Your task to perform on an android device: When is my next meeting? Image 0: 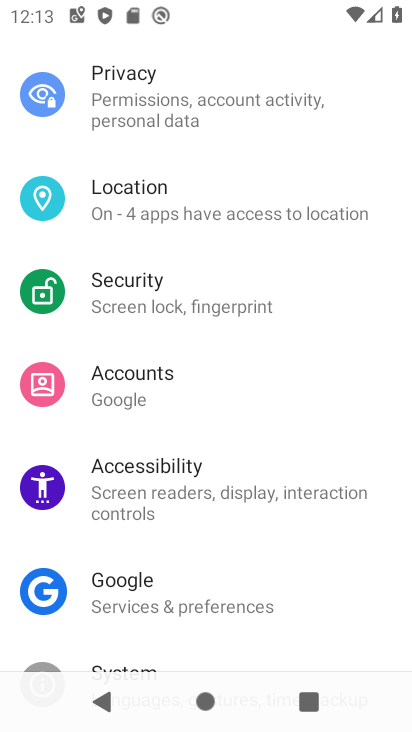
Step 0: press home button
Your task to perform on an android device: When is my next meeting? Image 1: 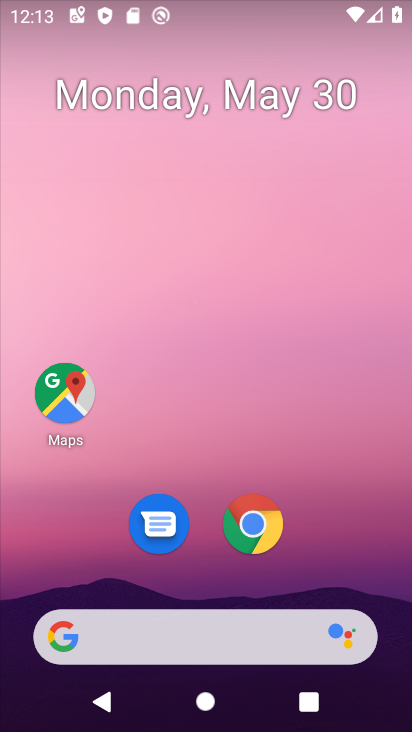
Step 1: drag from (226, 448) to (277, 6)
Your task to perform on an android device: When is my next meeting? Image 2: 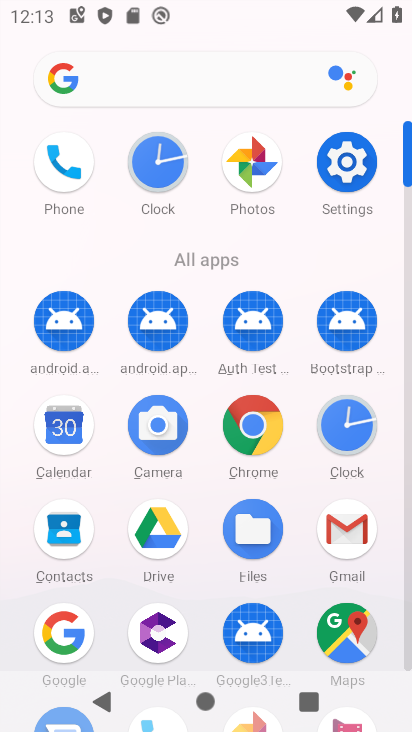
Step 2: click (66, 423)
Your task to perform on an android device: When is my next meeting? Image 3: 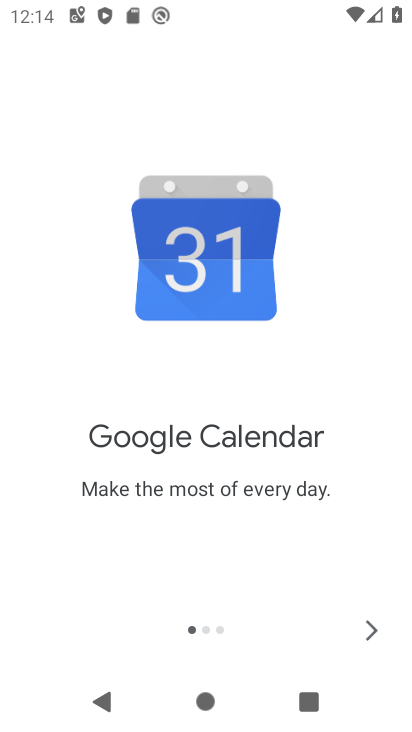
Step 3: click (367, 626)
Your task to perform on an android device: When is my next meeting? Image 4: 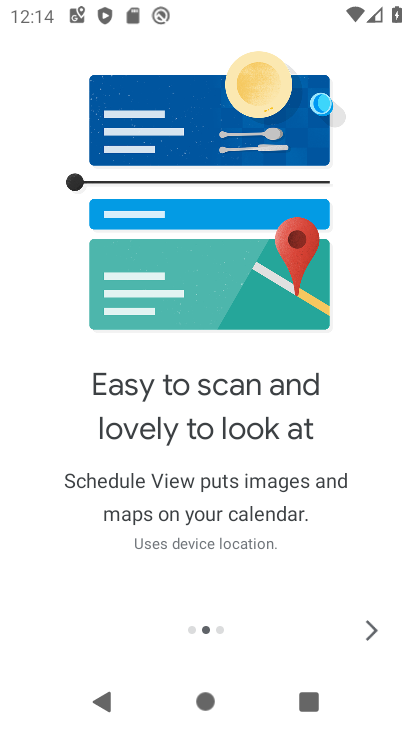
Step 4: click (367, 626)
Your task to perform on an android device: When is my next meeting? Image 5: 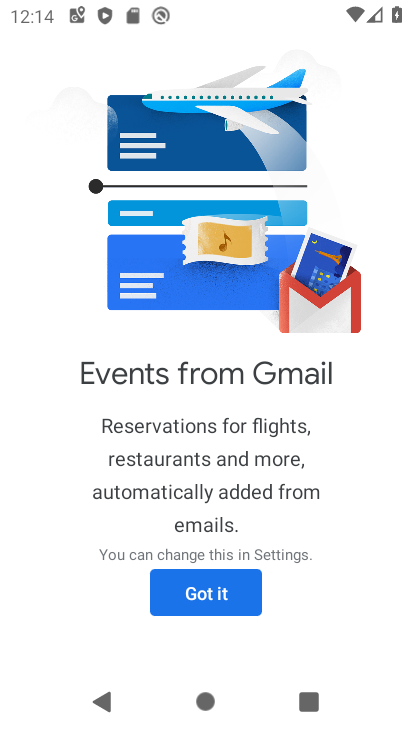
Step 5: click (236, 592)
Your task to perform on an android device: When is my next meeting? Image 6: 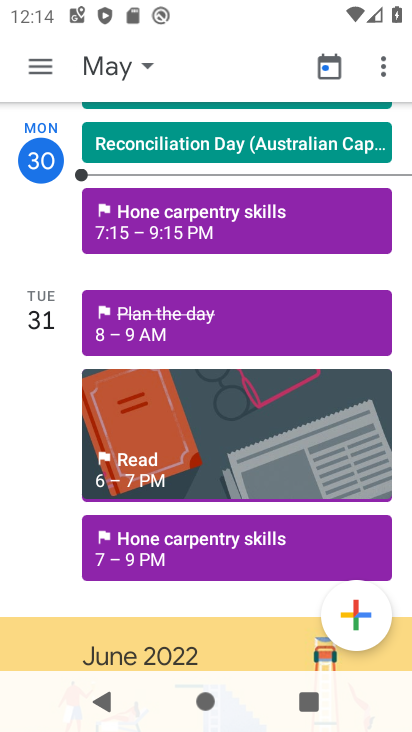
Step 6: task complete